Your task to perform on an android device: Open Youtube and go to the subscriptions tab Image 0: 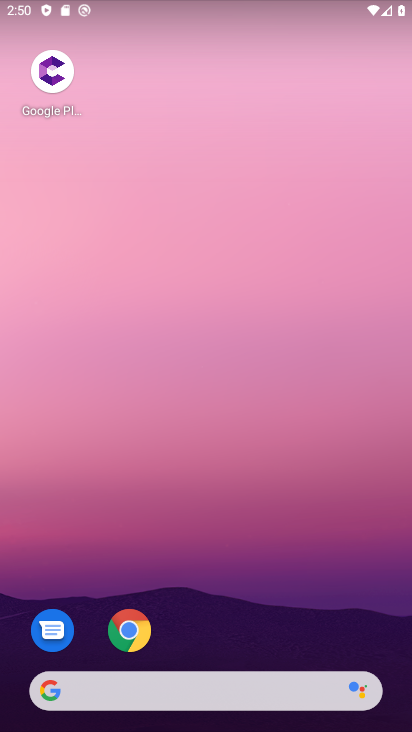
Step 0: drag from (182, 570) to (175, 125)
Your task to perform on an android device: Open Youtube and go to the subscriptions tab Image 1: 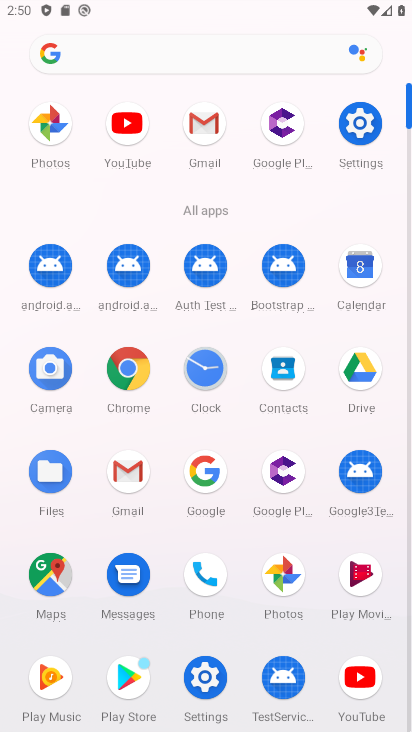
Step 1: click (371, 666)
Your task to perform on an android device: Open Youtube and go to the subscriptions tab Image 2: 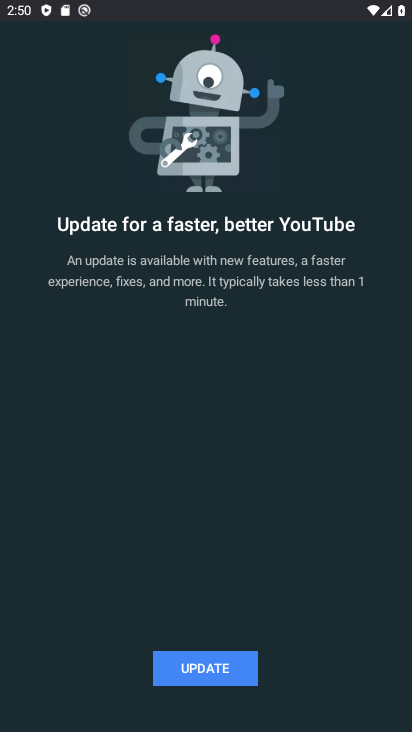
Step 2: click (191, 662)
Your task to perform on an android device: Open Youtube and go to the subscriptions tab Image 3: 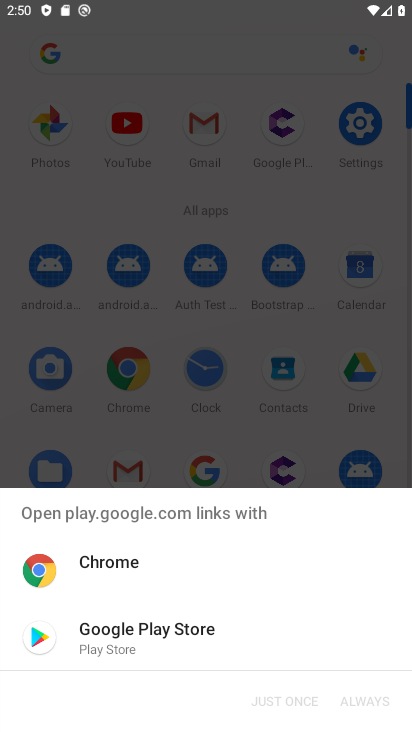
Step 3: click (142, 617)
Your task to perform on an android device: Open Youtube and go to the subscriptions tab Image 4: 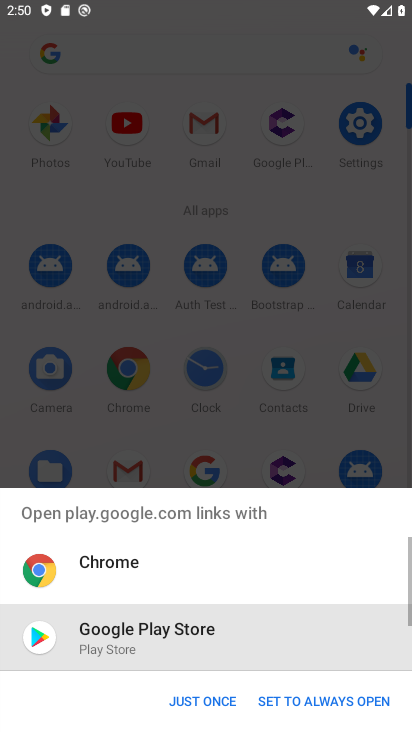
Step 4: click (212, 697)
Your task to perform on an android device: Open Youtube and go to the subscriptions tab Image 5: 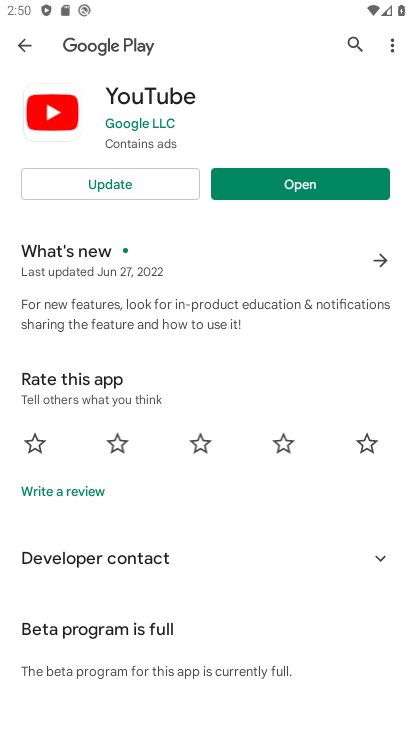
Step 5: click (91, 176)
Your task to perform on an android device: Open Youtube and go to the subscriptions tab Image 6: 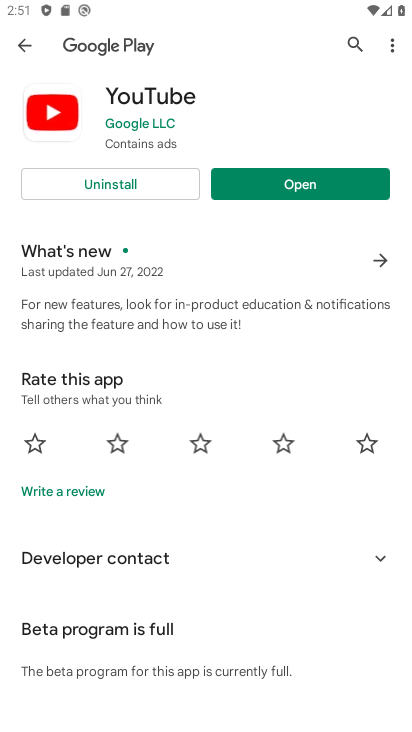
Step 6: click (272, 191)
Your task to perform on an android device: Open Youtube and go to the subscriptions tab Image 7: 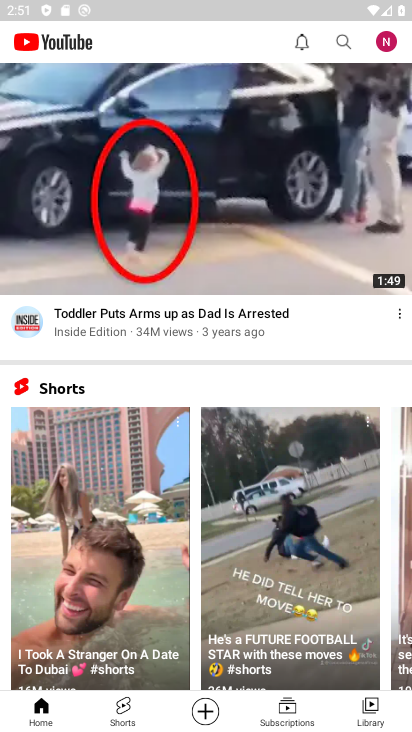
Step 7: click (269, 708)
Your task to perform on an android device: Open Youtube and go to the subscriptions tab Image 8: 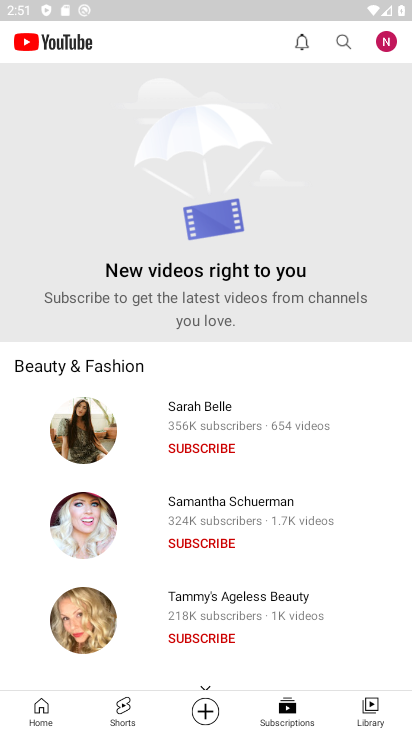
Step 8: task complete